Your task to perform on an android device: Search for pizza restaurants on Maps Image 0: 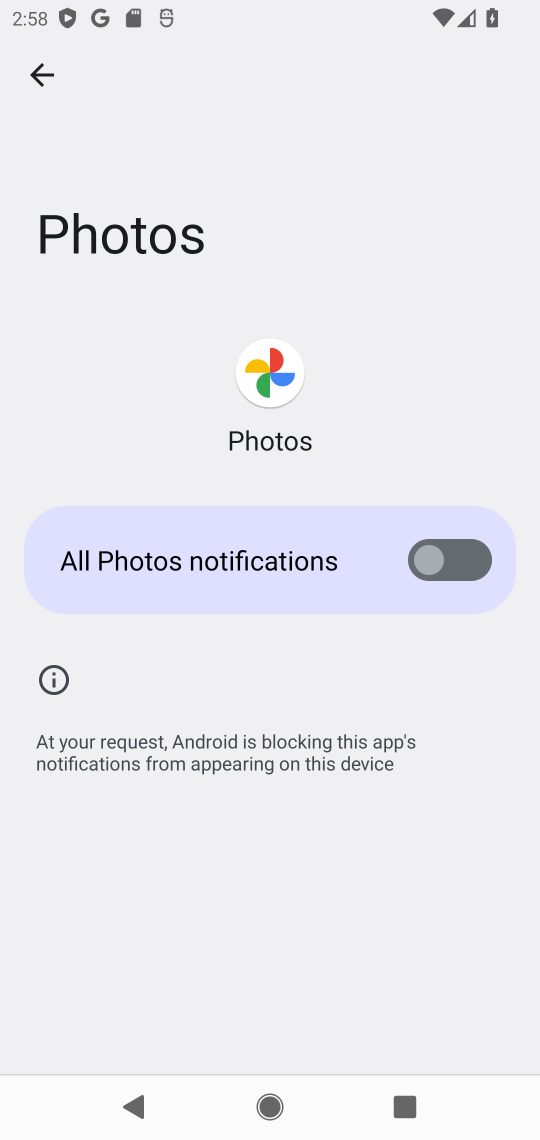
Step 0: press home button
Your task to perform on an android device: Search for pizza restaurants on Maps Image 1: 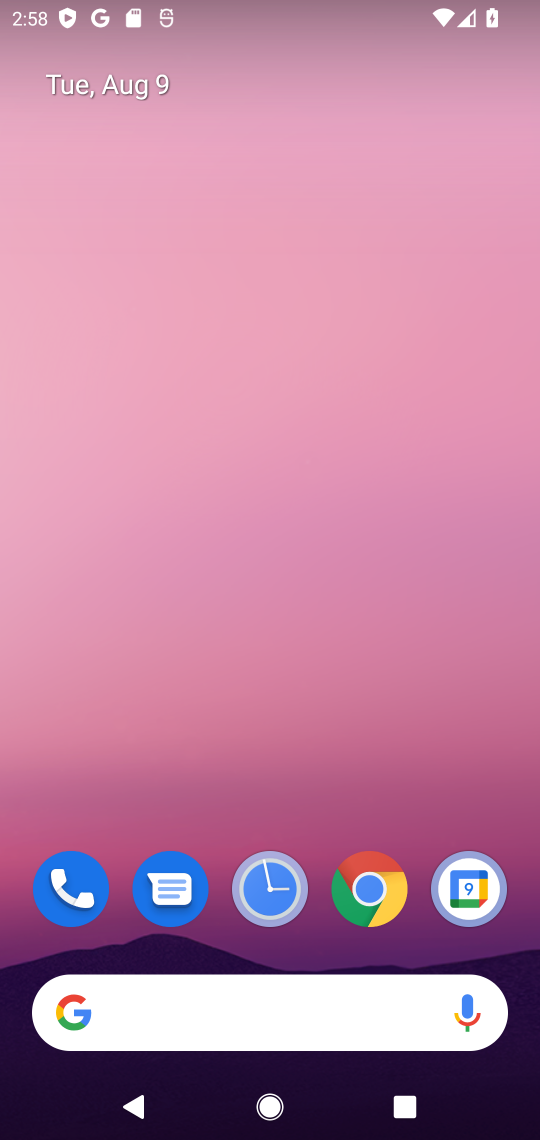
Step 1: drag from (335, 786) to (398, 0)
Your task to perform on an android device: Search for pizza restaurants on Maps Image 2: 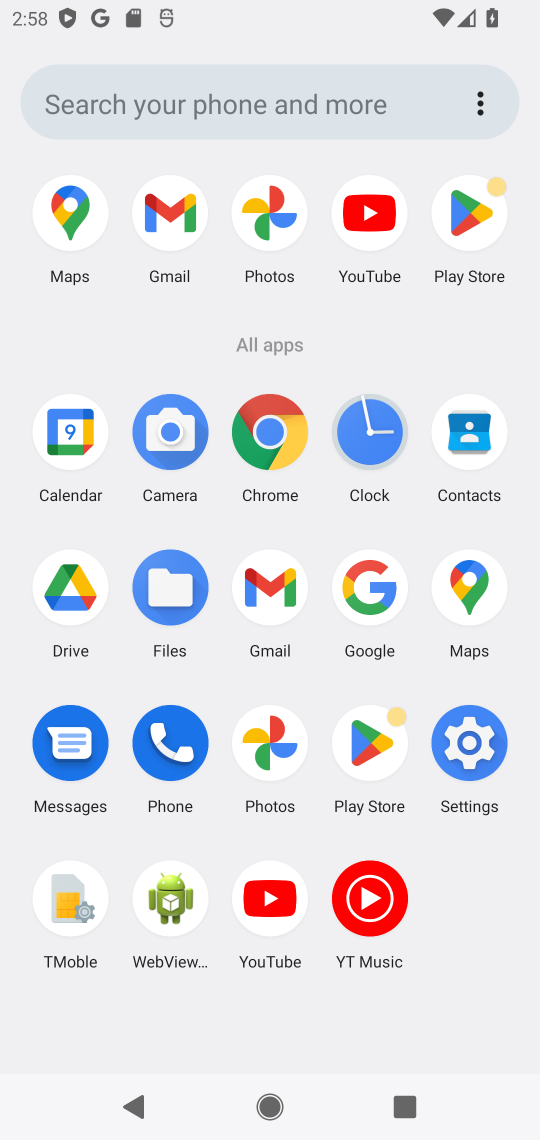
Step 2: click (471, 584)
Your task to perform on an android device: Search for pizza restaurants on Maps Image 3: 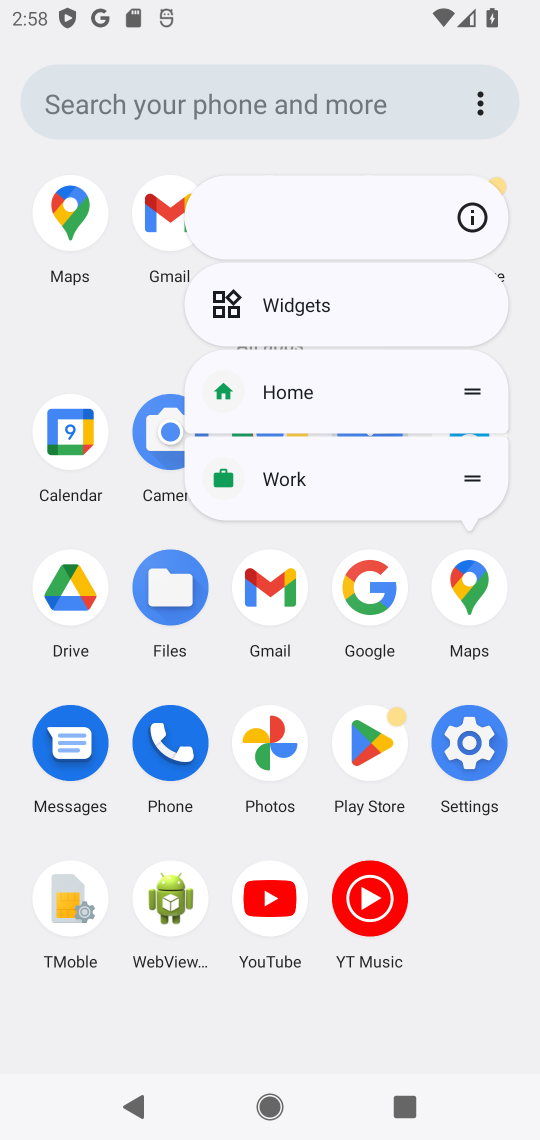
Step 3: click (471, 584)
Your task to perform on an android device: Search for pizza restaurants on Maps Image 4: 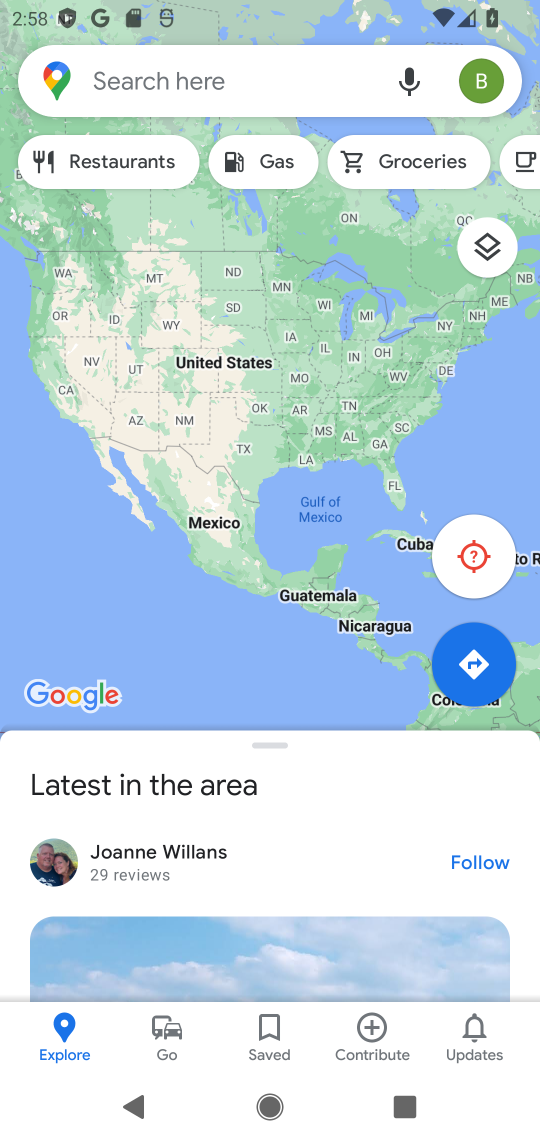
Step 4: click (307, 72)
Your task to perform on an android device: Search for pizza restaurants on Maps Image 5: 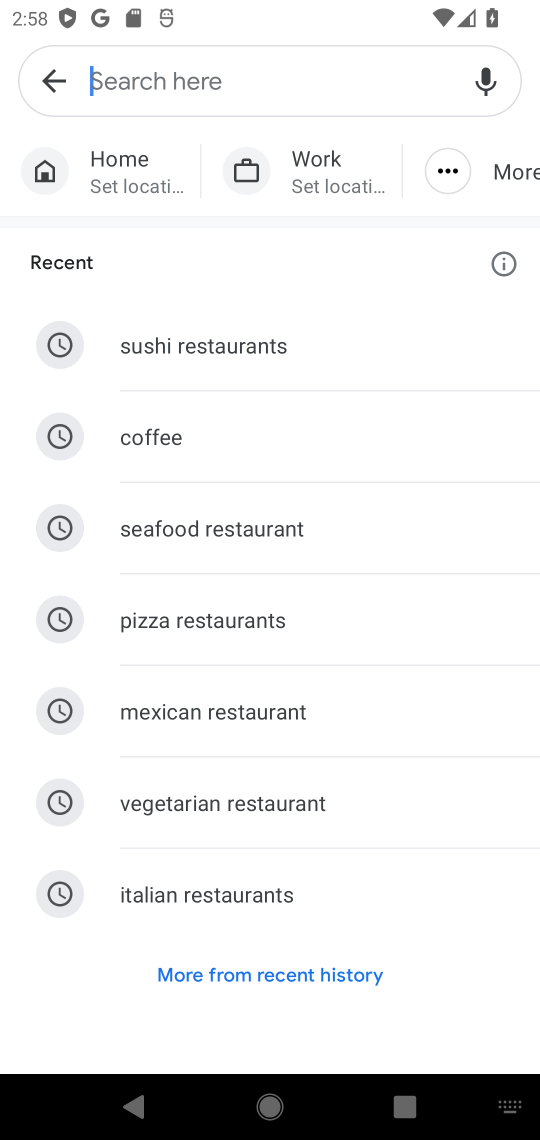
Step 5: click (259, 608)
Your task to perform on an android device: Search for pizza restaurants on Maps Image 6: 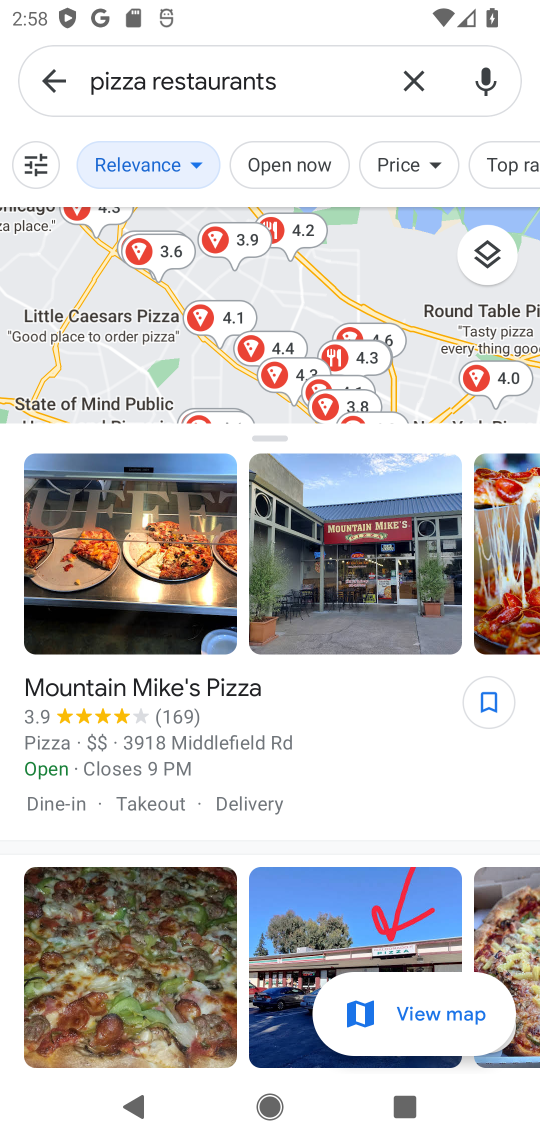
Step 6: task complete